Your task to perform on an android device: Open network settings Image 0: 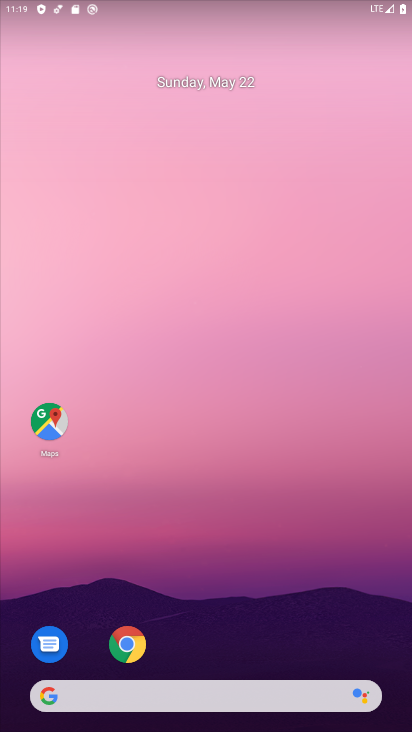
Step 0: drag from (183, 653) to (185, 328)
Your task to perform on an android device: Open network settings Image 1: 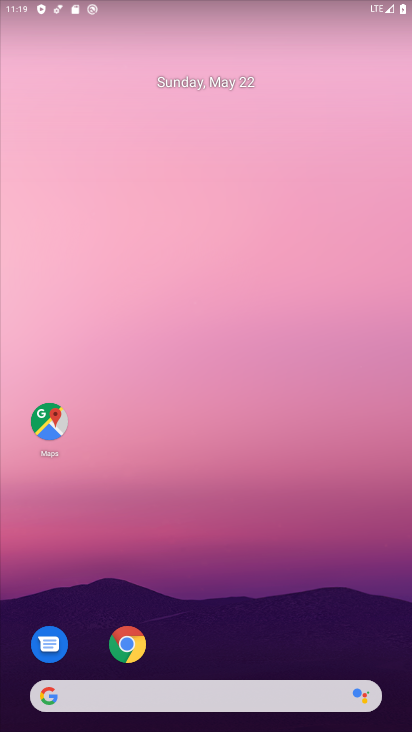
Step 1: drag from (237, 651) to (208, 130)
Your task to perform on an android device: Open network settings Image 2: 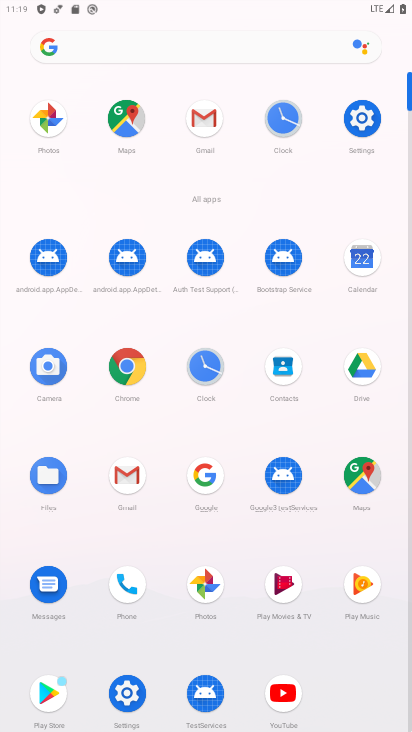
Step 2: click (373, 119)
Your task to perform on an android device: Open network settings Image 3: 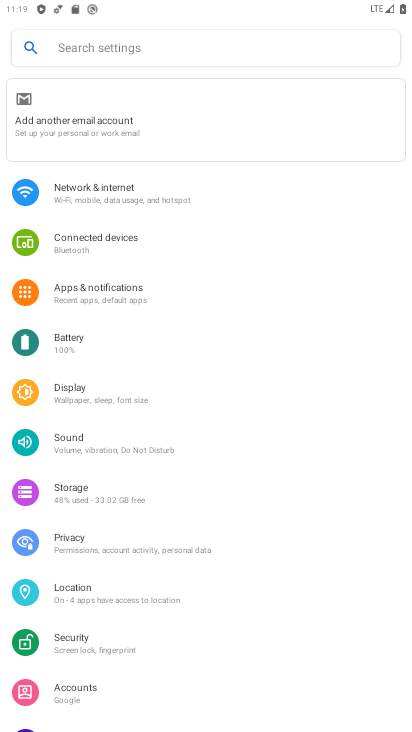
Step 3: click (73, 190)
Your task to perform on an android device: Open network settings Image 4: 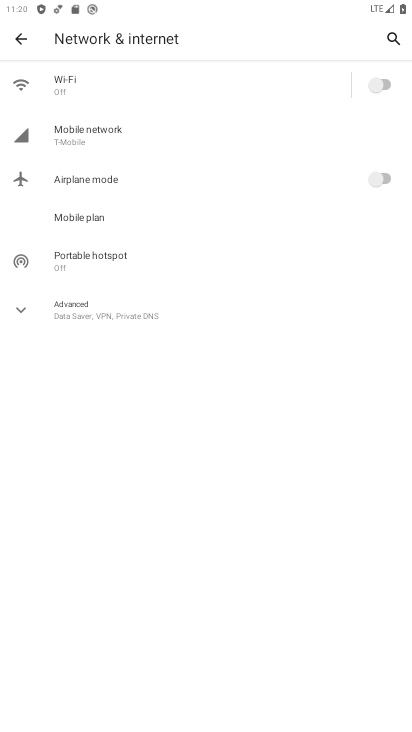
Step 4: task complete